Your task to perform on an android device: change the clock display to digital Image 0: 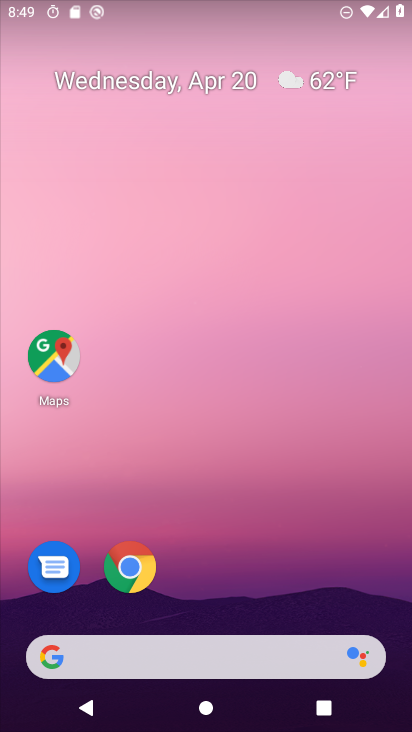
Step 0: drag from (357, 561) to (322, 25)
Your task to perform on an android device: change the clock display to digital Image 1: 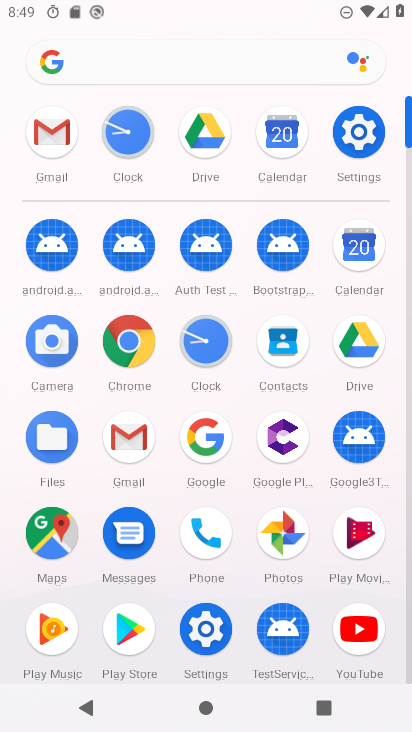
Step 1: click (119, 135)
Your task to perform on an android device: change the clock display to digital Image 2: 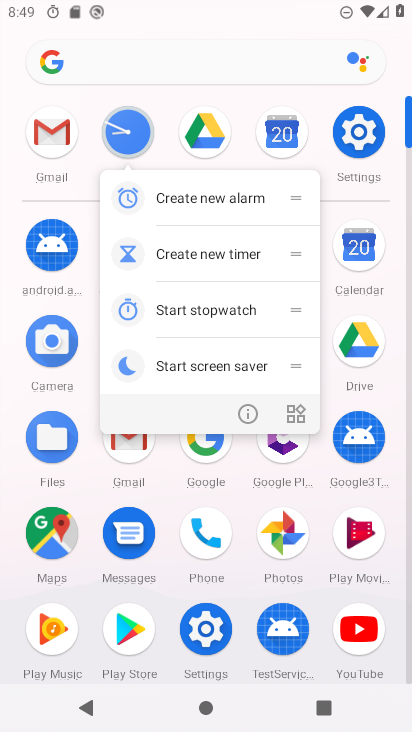
Step 2: click (111, 142)
Your task to perform on an android device: change the clock display to digital Image 3: 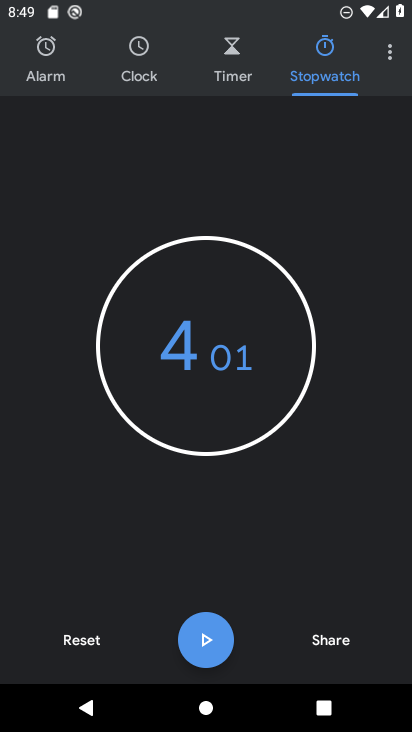
Step 3: click (394, 53)
Your task to perform on an android device: change the clock display to digital Image 4: 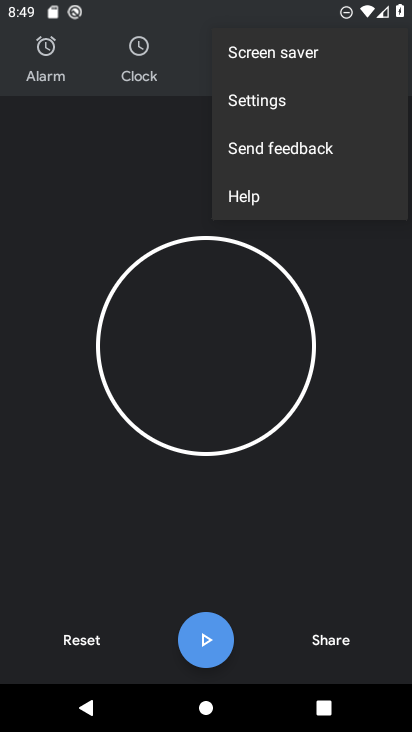
Step 4: click (273, 98)
Your task to perform on an android device: change the clock display to digital Image 5: 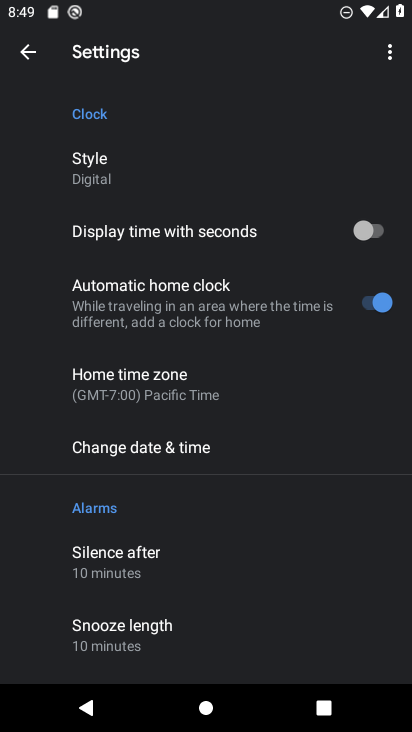
Step 5: click (107, 173)
Your task to perform on an android device: change the clock display to digital Image 6: 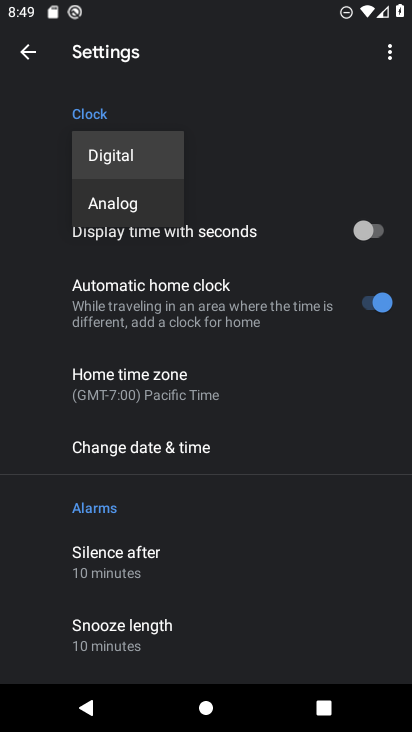
Step 6: task complete